Your task to perform on an android device: toggle pop-ups in chrome Image 0: 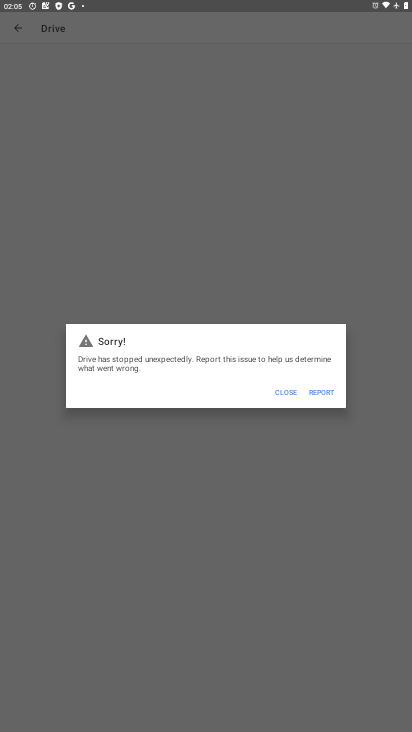
Step 0: press home button
Your task to perform on an android device: toggle pop-ups in chrome Image 1: 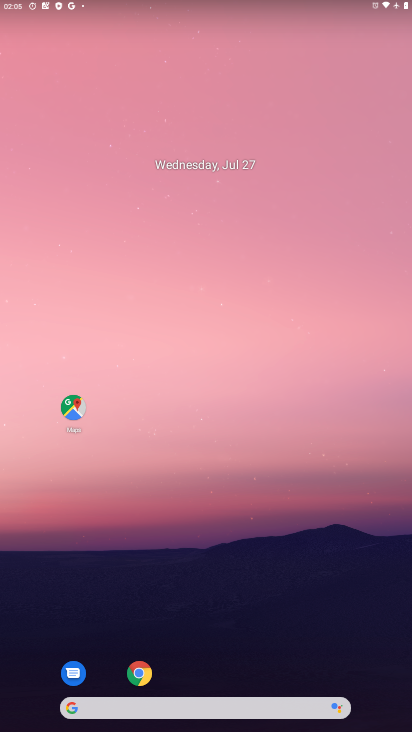
Step 1: click (148, 678)
Your task to perform on an android device: toggle pop-ups in chrome Image 2: 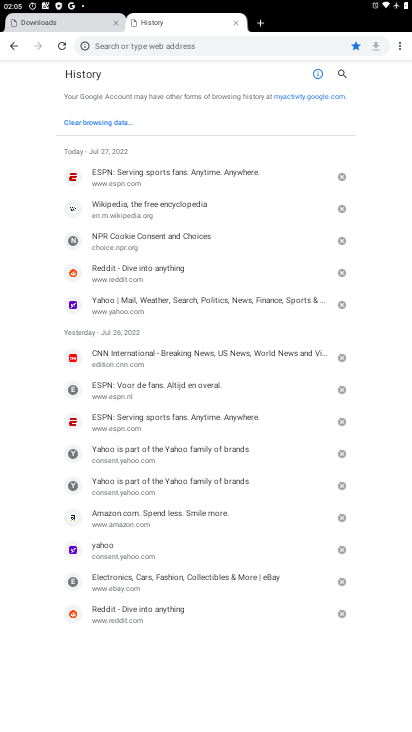
Step 2: drag from (403, 44) to (300, 220)
Your task to perform on an android device: toggle pop-ups in chrome Image 3: 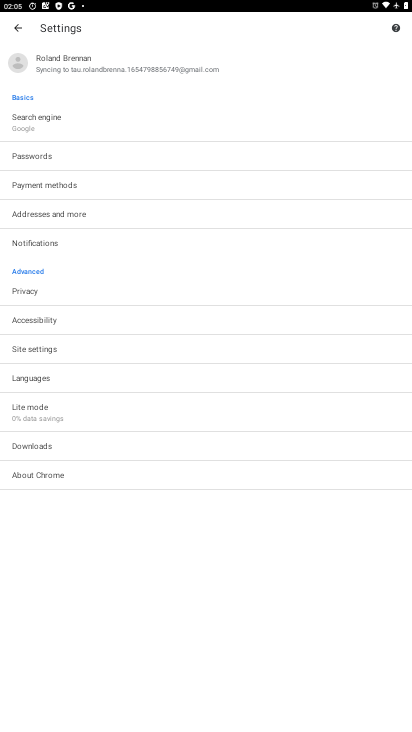
Step 3: click (36, 352)
Your task to perform on an android device: toggle pop-ups in chrome Image 4: 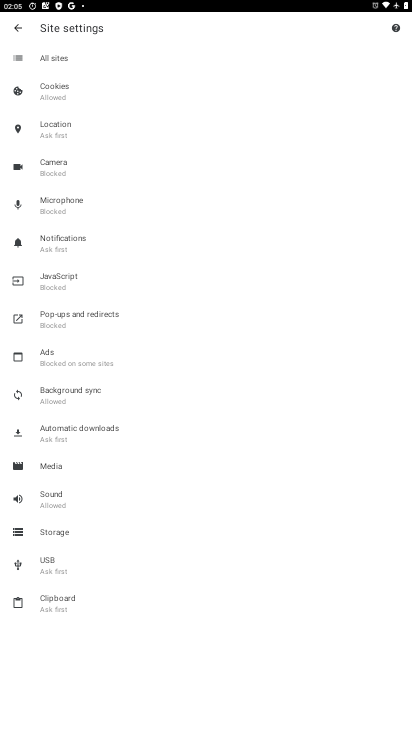
Step 4: click (54, 323)
Your task to perform on an android device: toggle pop-ups in chrome Image 5: 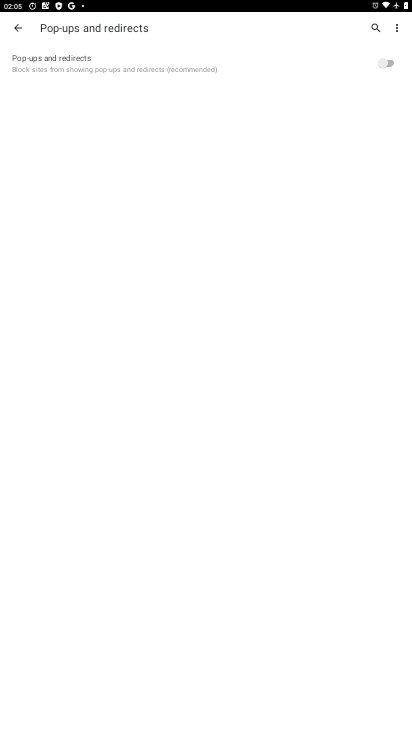
Step 5: click (394, 63)
Your task to perform on an android device: toggle pop-ups in chrome Image 6: 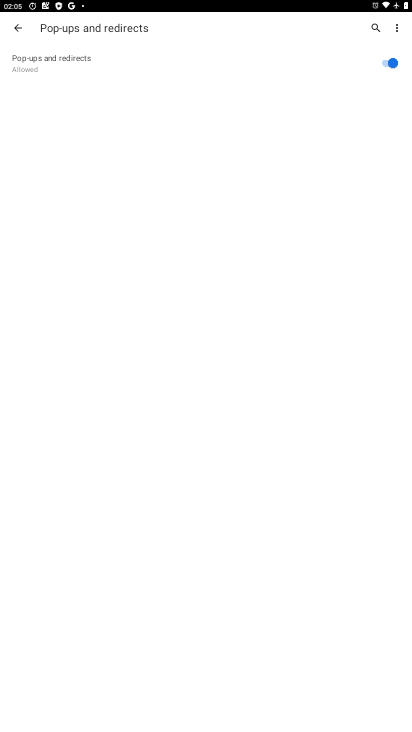
Step 6: task complete